Your task to perform on an android device: check the backup settings in the google photos Image 0: 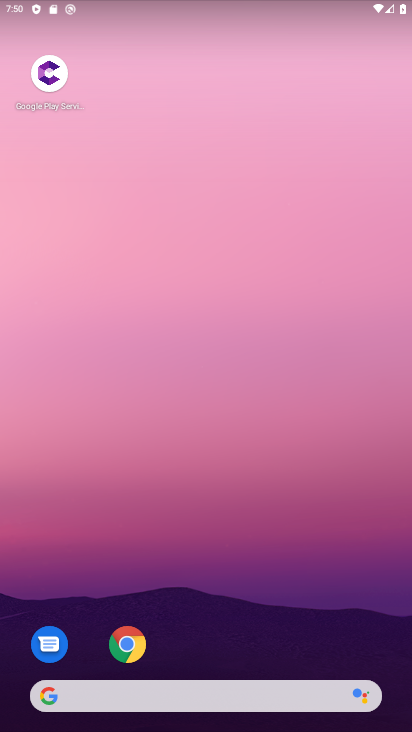
Step 0: drag from (144, 725) to (225, 20)
Your task to perform on an android device: check the backup settings in the google photos Image 1: 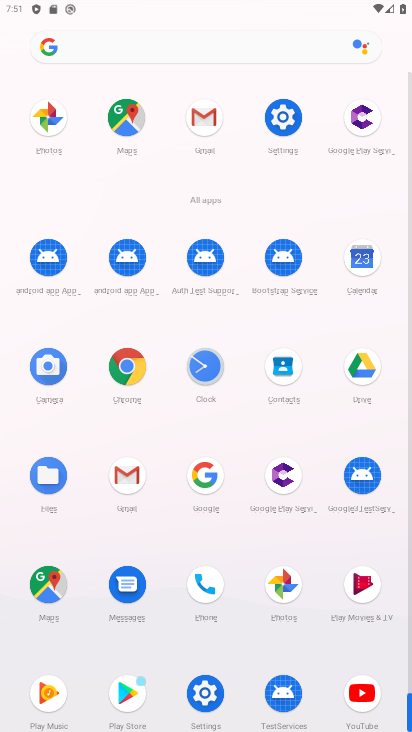
Step 1: click (44, 131)
Your task to perform on an android device: check the backup settings in the google photos Image 2: 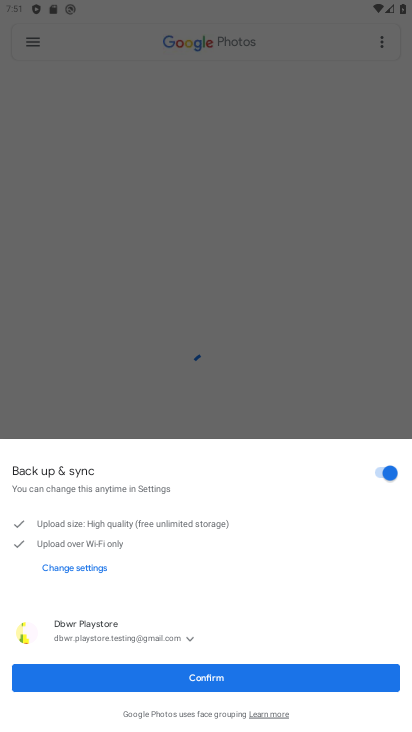
Step 2: click (92, 671)
Your task to perform on an android device: check the backup settings in the google photos Image 3: 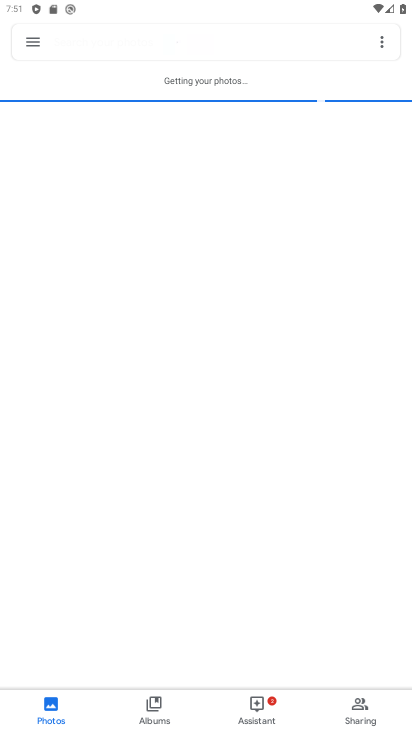
Step 3: click (36, 40)
Your task to perform on an android device: check the backup settings in the google photos Image 4: 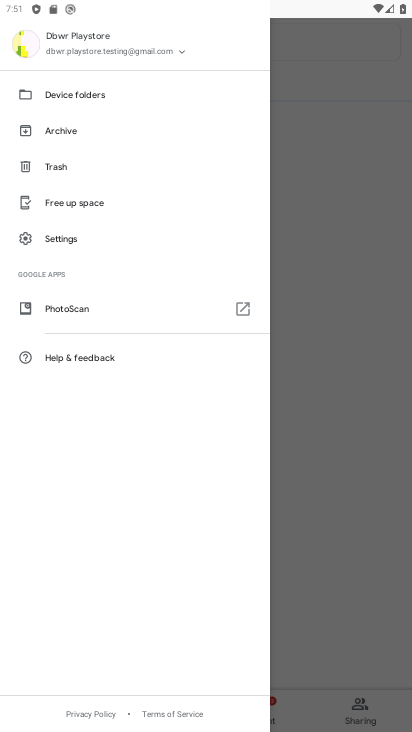
Step 4: click (73, 241)
Your task to perform on an android device: check the backup settings in the google photos Image 5: 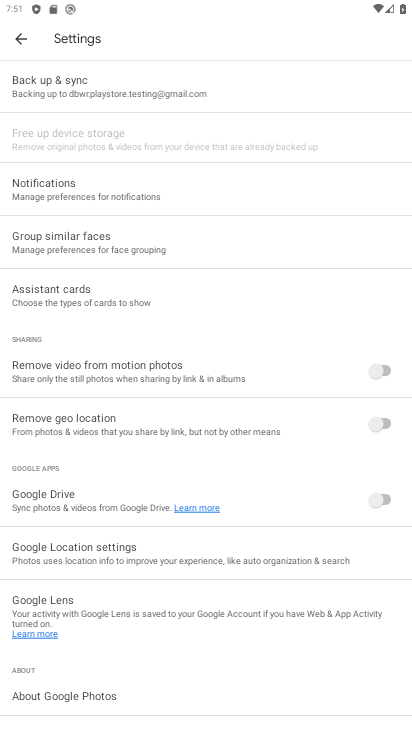
Step 5: click (141, 78)
Your task to perform on an android device: check the backup settings in the google photos Image 6: 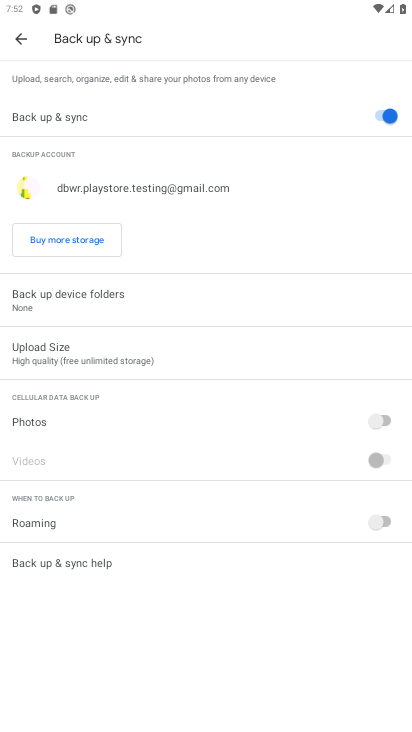
Step 6: task complete